Your task to perform on an android device: Search for the best selling video games at Target Image 0: 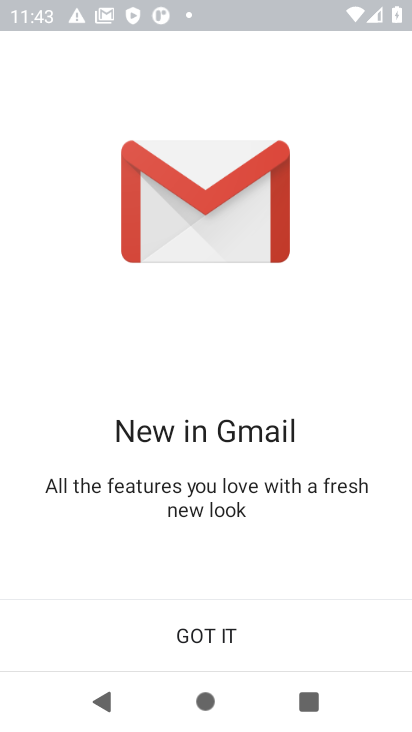
Step 0: press home button
Your task to perform on an android device: Search for the best selling video games at Target Image 1: 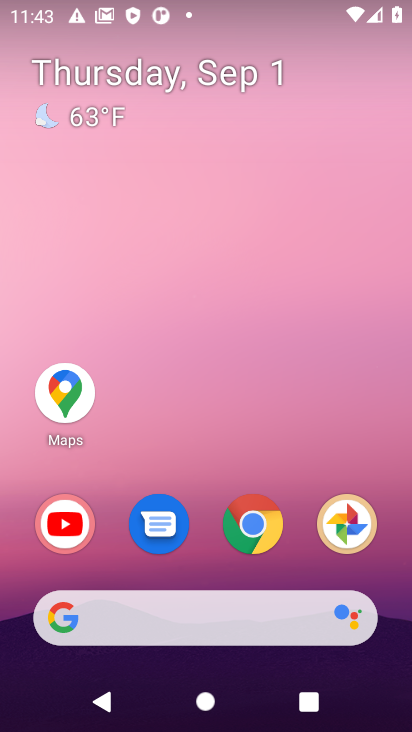
Step 1: click (251, 526)
Your task to perform on an android device: Search for the best selling video games at Target Image 2: 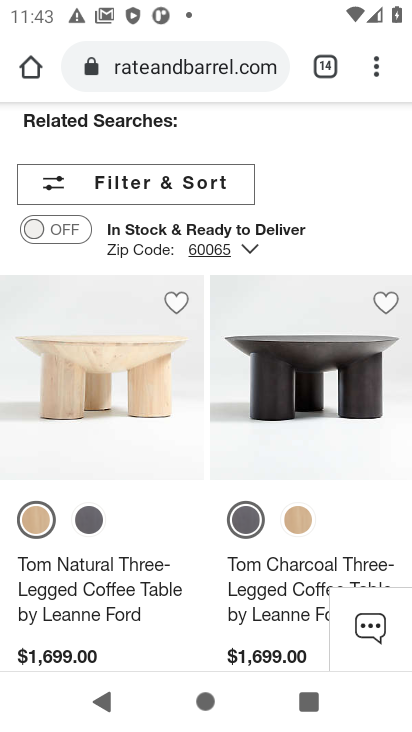
Step 2: click (325, 77)
Your task to perform on an android device: Search for the best selling video games at Target Image 3: 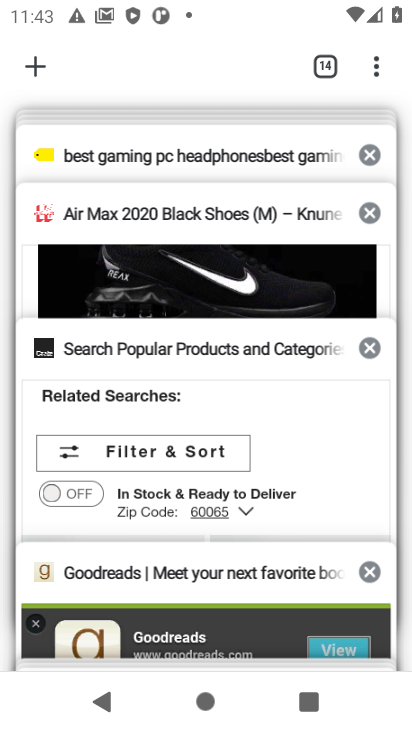
Step 3: drag from (142, 385) to (147, 160)
Your task to perform on an android device: Search for the best selling video games at Target Image 4: 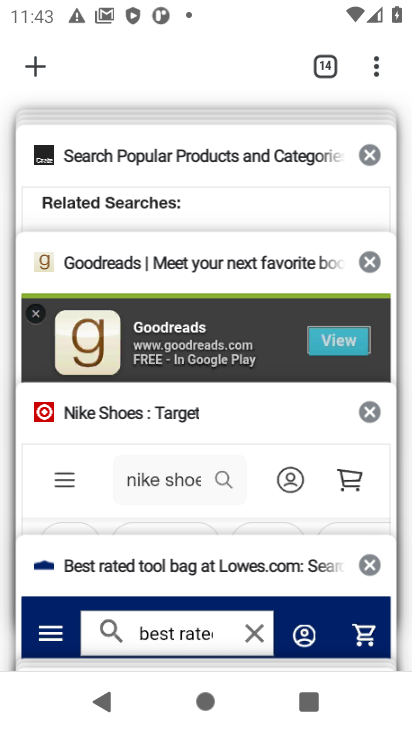
Step 4: click (138, 413)
Your task to perform on an android device: Search for the best selling video games at Target Image 5: 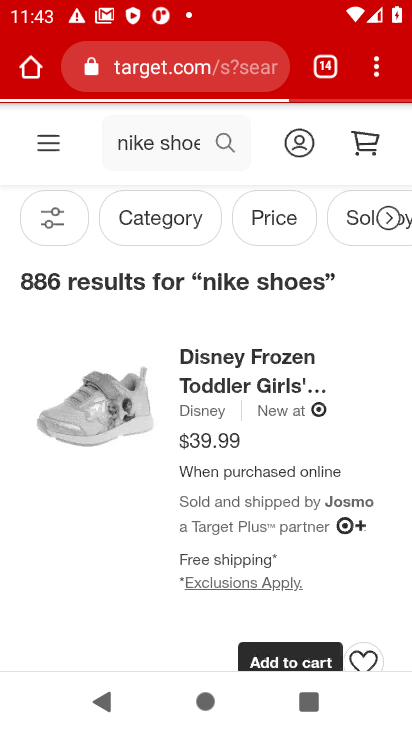
Step 5: click (181, 141)
Your task to perform on an android device: Search for the best selling video games at Target Image 6: 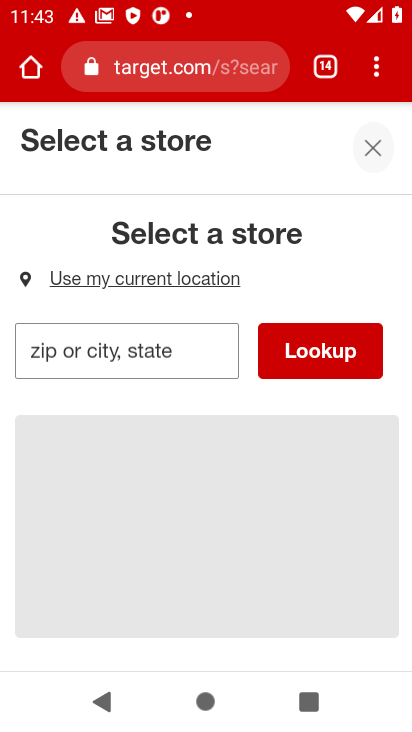
Step 6: click (368, 142)
Your task to perform on an android device: Search for the best selling video games at Target Image 7: 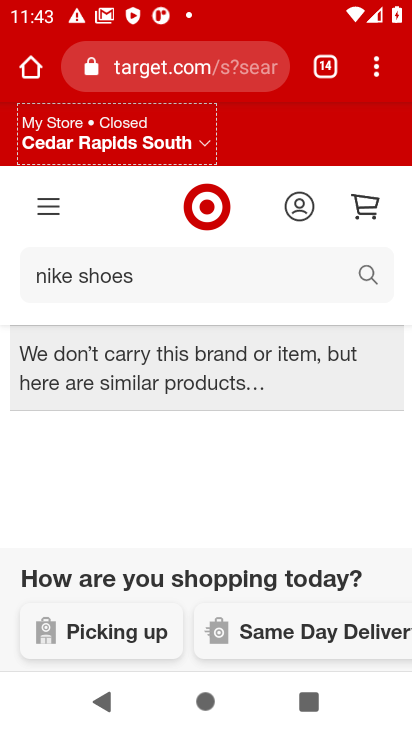
Step 7: click (130, 284)
Your task to perform on an android device: Search for the best selling video games at Target Image 8: 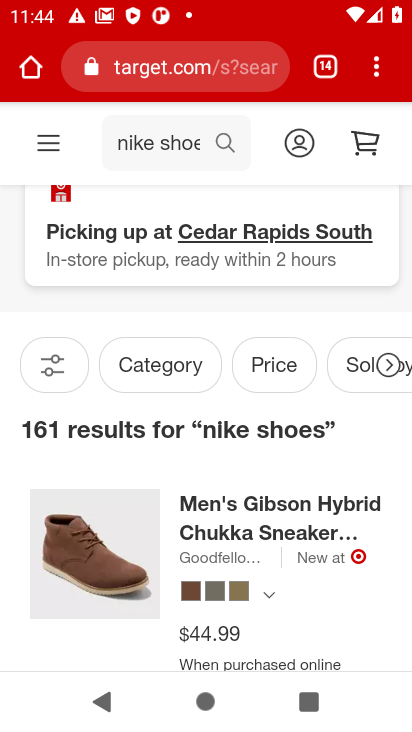
Step 8: click (178, 142)
Your task to perform on an android device: Search for the best selling video games at Target Image 9: 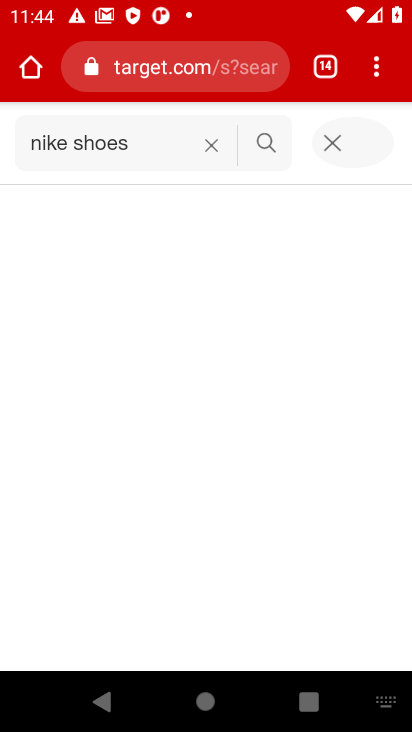
Step 9: click (214, 147)
Your task to perform on an android device: Search for the best selling video games at Target Image 10: 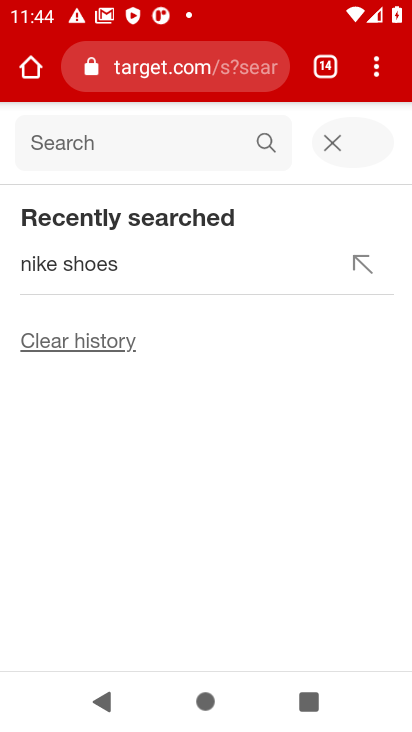
Step 10: click (136, 151)
Your task to perform on an android device: Search for the best selling video games at Target Image 11: 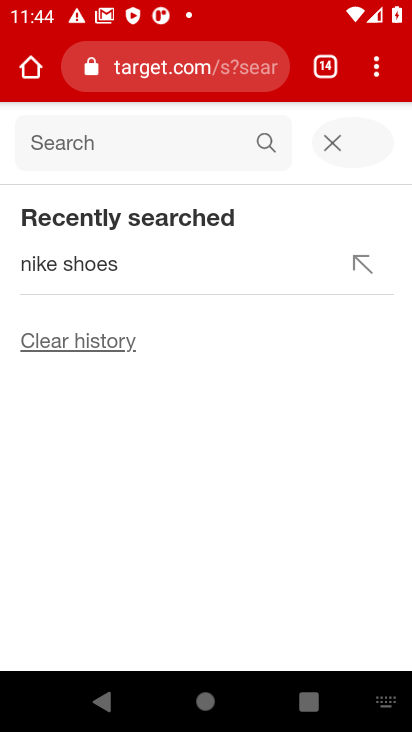
Step 11: type "best selling video games"
Your task to perform on an android device: Search for the best selling video games at Target Image 12: 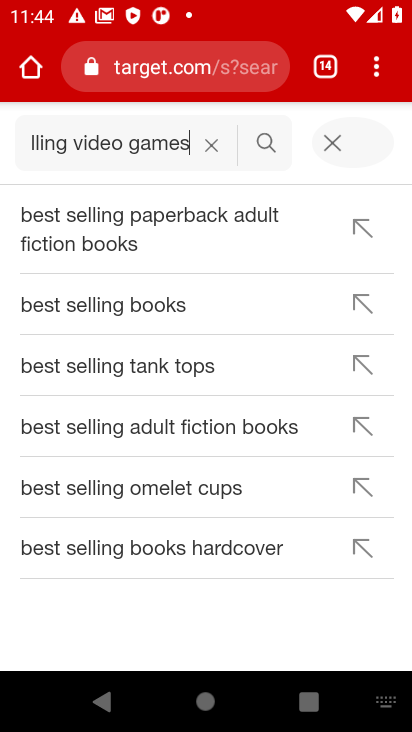
Step 12: click (260, 142)
Your task to perform on an android device: Search for the best selling video games at Target Image 13: 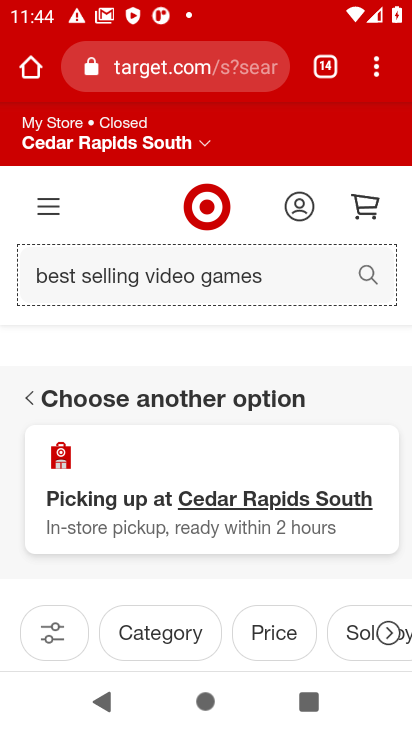
Step 13: task complete